Your task to perform on an android device: Open ESPN.com Image 0: 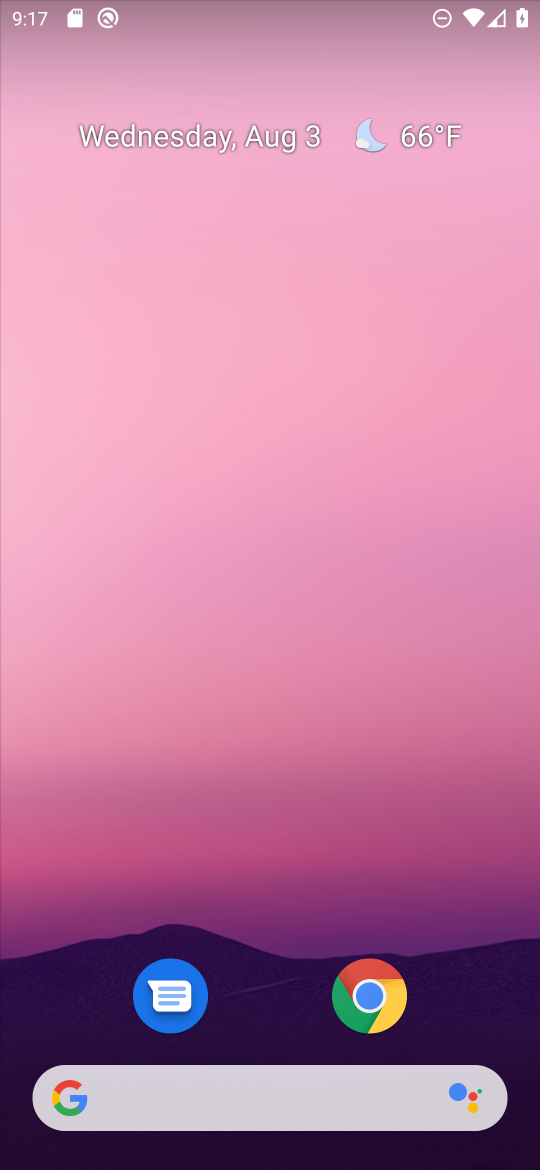
Step 0: click (259, 1112)
Your task to perform on an android device: Open ESPN.com Image 1: 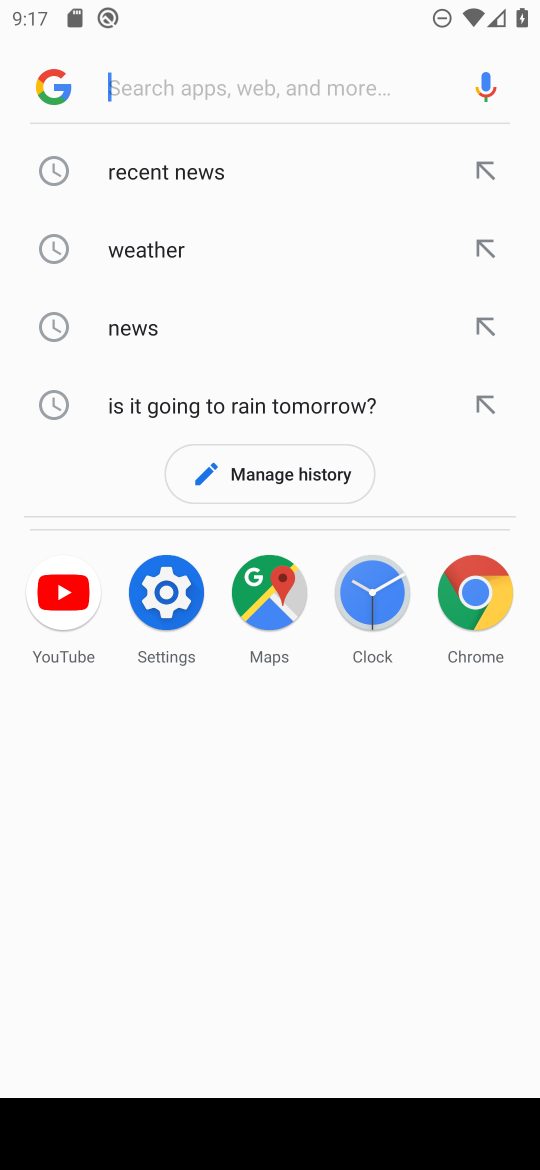
Step 1: type "espn.com"
Your task to perform on an android device: Open ESPN.com Image 2: 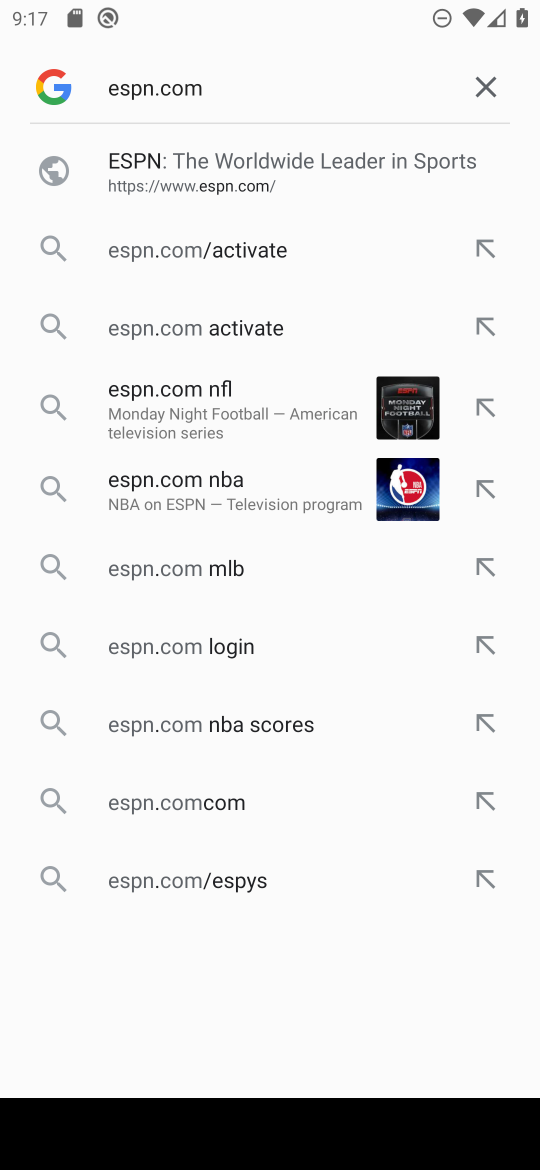
Step 2: click (339, 158)
Your task to perform on an android device: Open ESPN.com Image 3: 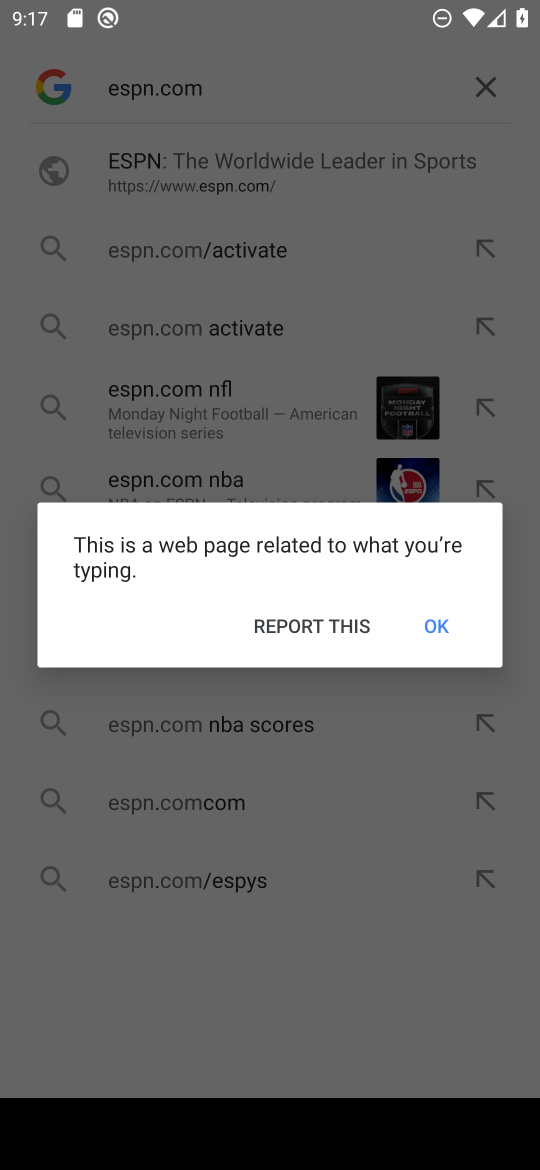
Step 3: click (433, 621)
Your task to perform on an android device: Open ESPN.com Image 4: 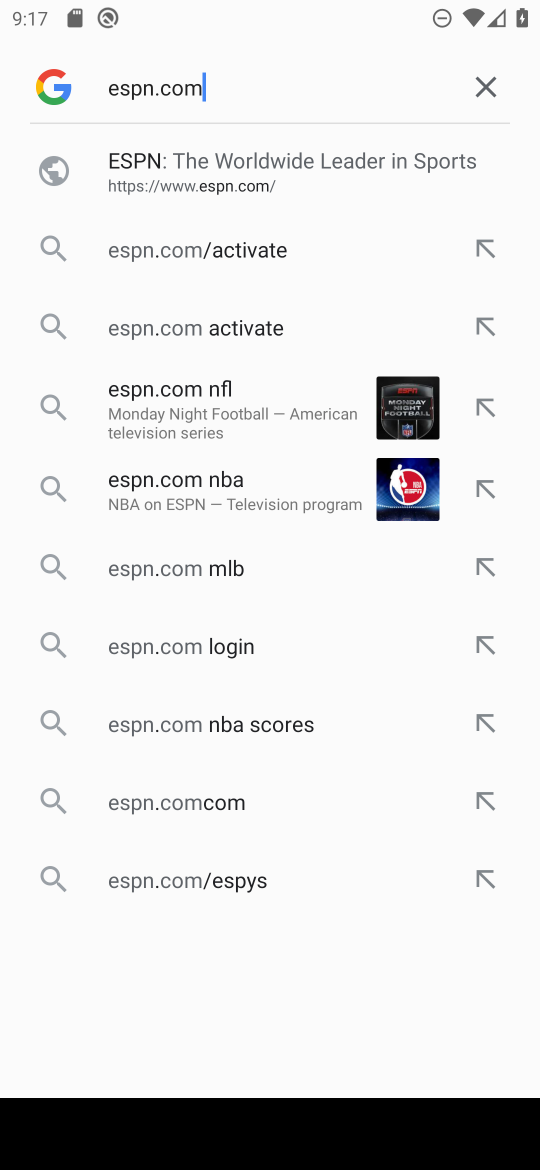
Step 4: click (218, 176)
Your task to perform on an android device: Open ESPN.com Image 5: 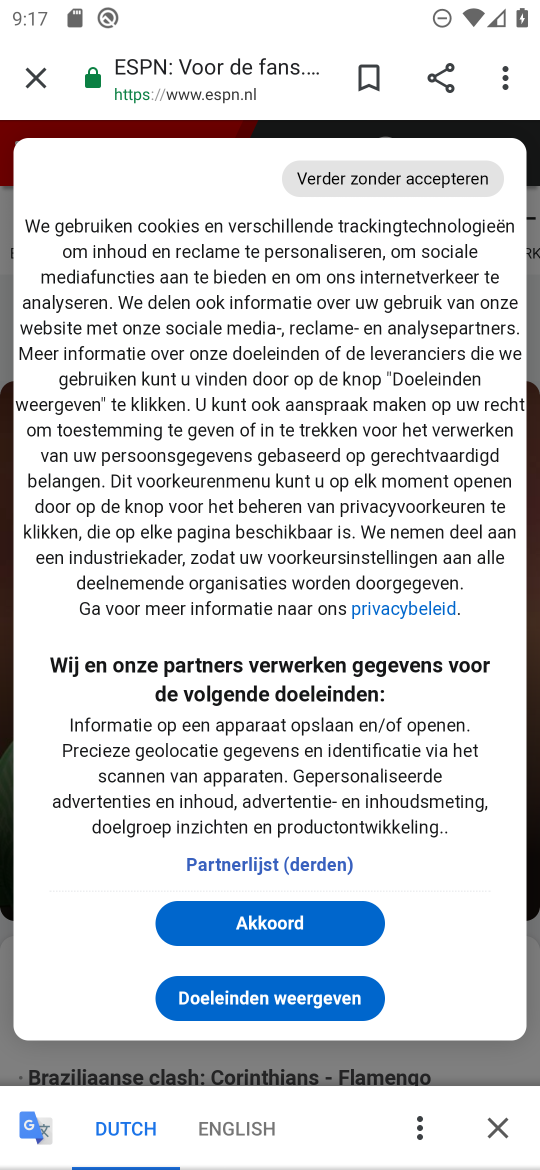
Step 5: click (265, 1135)
Your task to perform on an android device: Open ESPN.com Image 6: 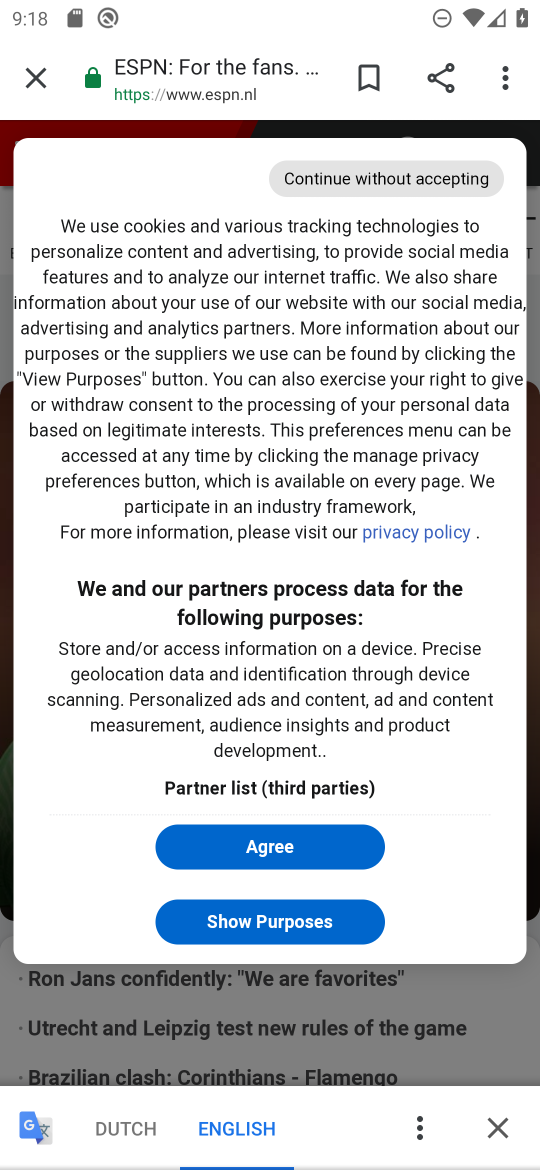
Step 6: click (370, 839)
Your task to perform on an android device: Open ESPN.com Image 7: 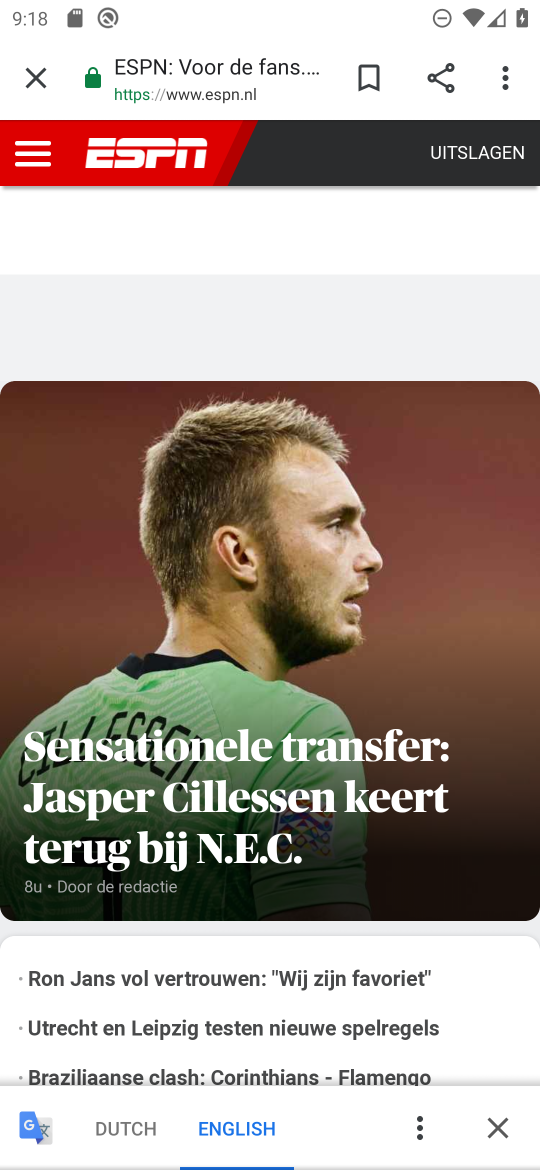
Step 7: task complete